Your task to perform on an android device: When is my next meeting? Image 0: 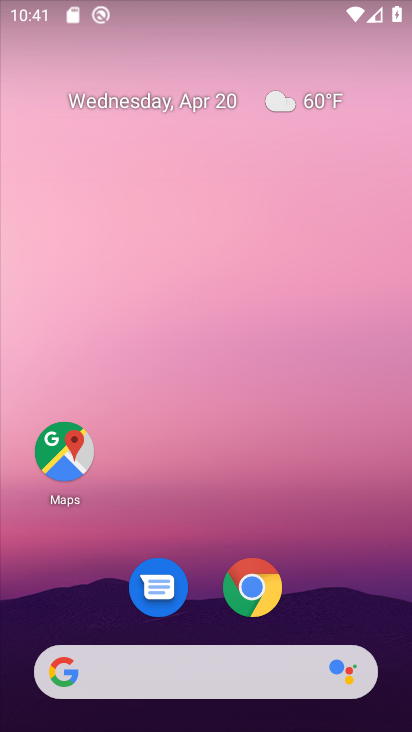
Step 0: drag from (211, 621) to (255, 78)
Your task to perform on an android device: When is my next meeting? Image 1: 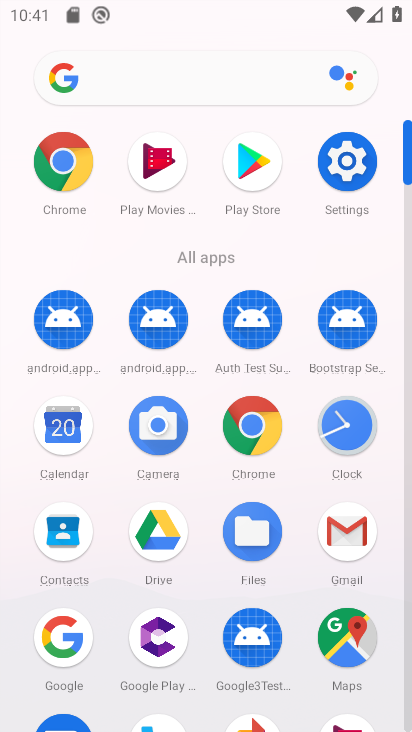
Step 1: click (60, 422)
Your task to perform on an android device: When is my next meeting? Image 2: 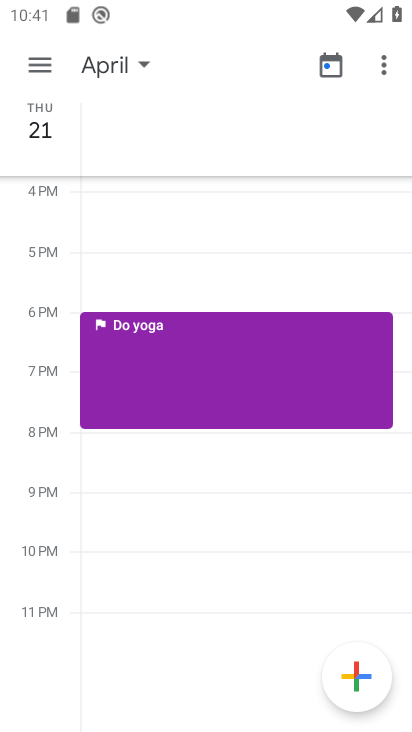
Step 2: click (57, 141)
Your task to perform on an android device: When is my next meeting? Image 3: 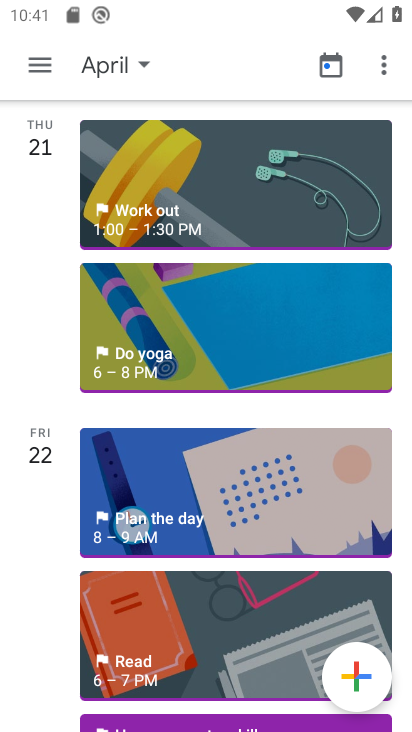
Step 3: drag from (45, 610) to (48, 330)
Your task to perform on an android device: When is my next meeting? Image 4: 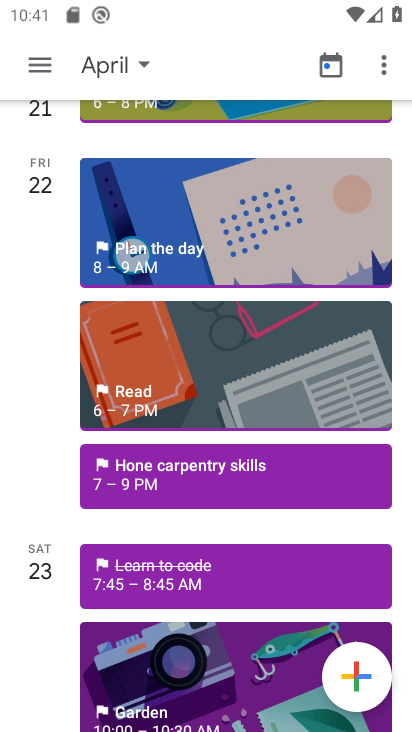
Step 4: drag from (44, 267) to (38, 609)
Your task to perform on an android device: When is my next meeting? Image 5: 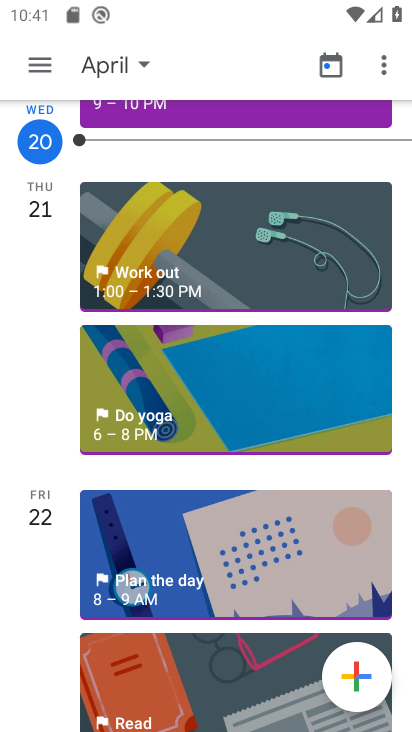
Step 5: click (43, 247)
Your task to perform on an android device: When is my next meeting? Image 6: 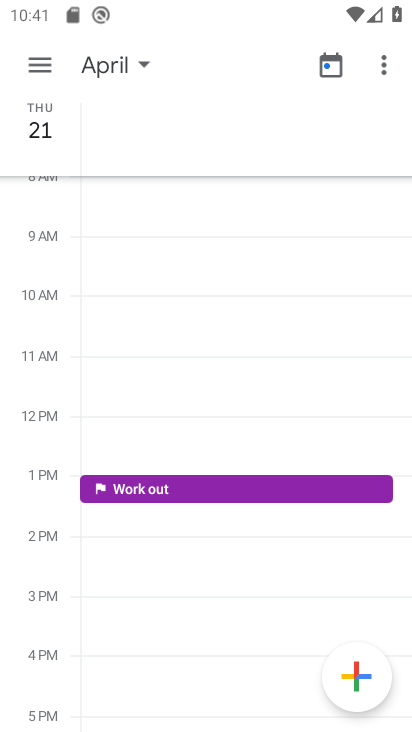
Step 6: drag from (170, 562) to (201, 184)
Your task to perform on an android device: When is my next meeting? Image 7: 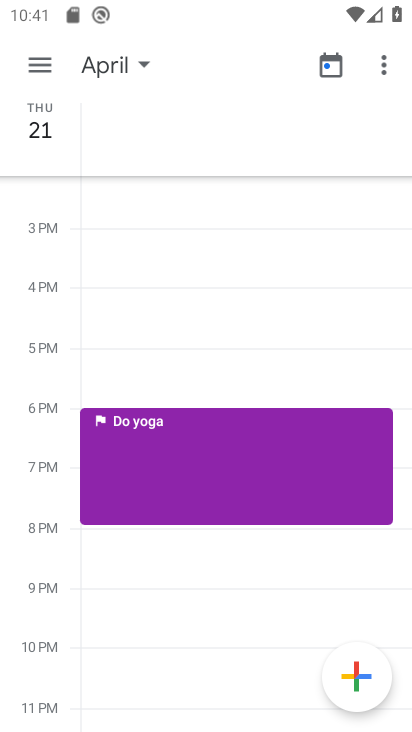
Step 7: drag from (157, 582) to (167, 168)
Your task to perform on an android device: When is my next meeting? Image 8: 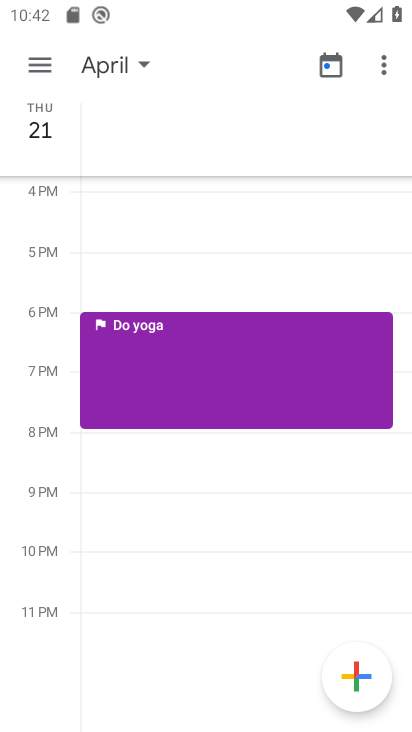
Step 8: click (40, 140)
Your task to perform on an android device: When is my next meeting? Image 9: 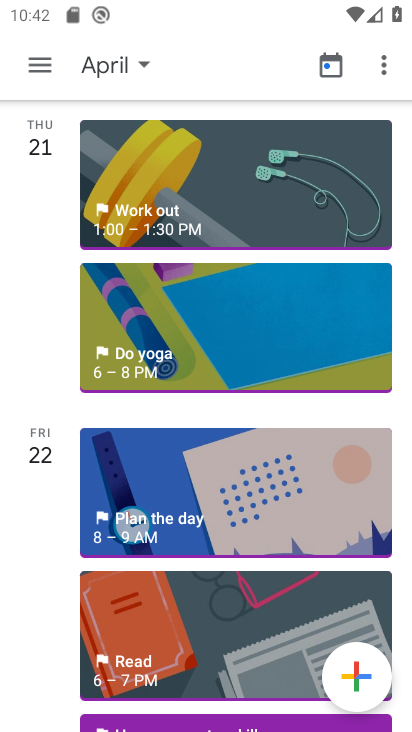
Step 9: click (43, 510)
Your task to perform on an android device: When is my next meeting? Image 10: 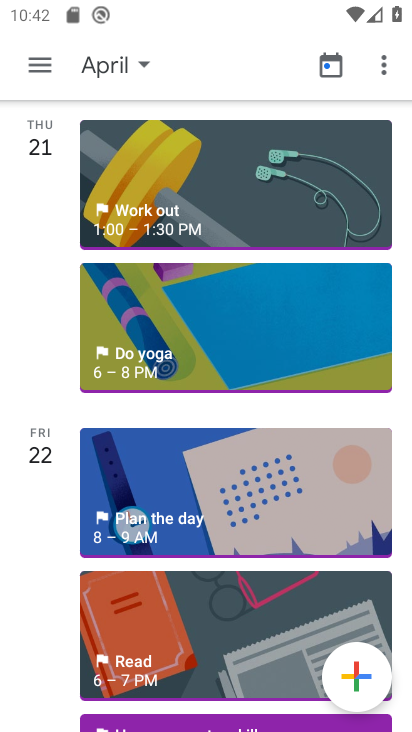
Step 10: click (51, 525)
Your task to perform on an android device: When is my next meeting? Image 11: 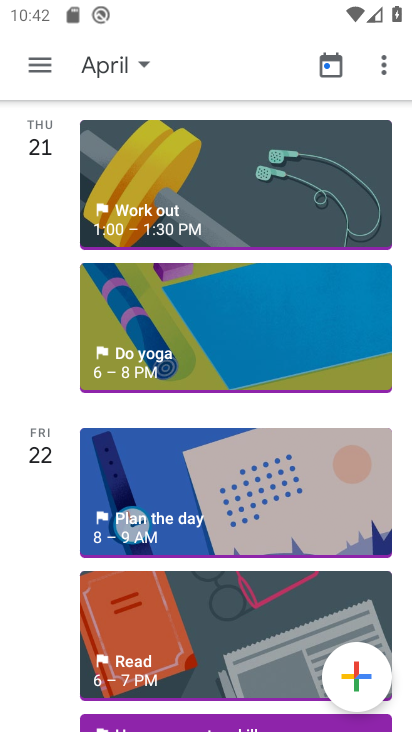
Step 11: click (52, 521)
Your task to perform on an android device: When is my next meeting? Image 12: 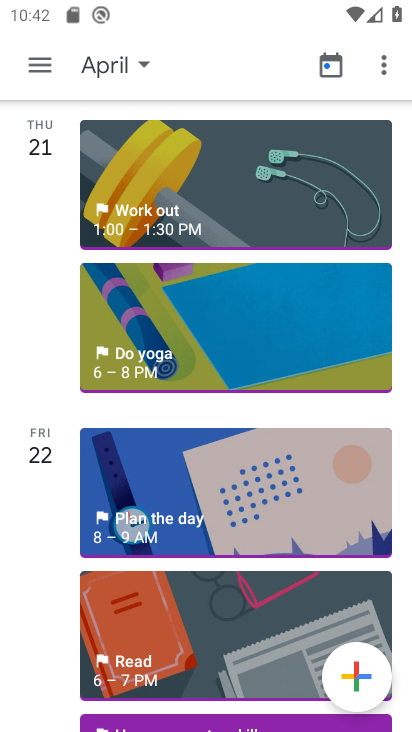
Step 12: click (60, 582)
Your task to perform on an android device: When is my next meeting? Image 13: 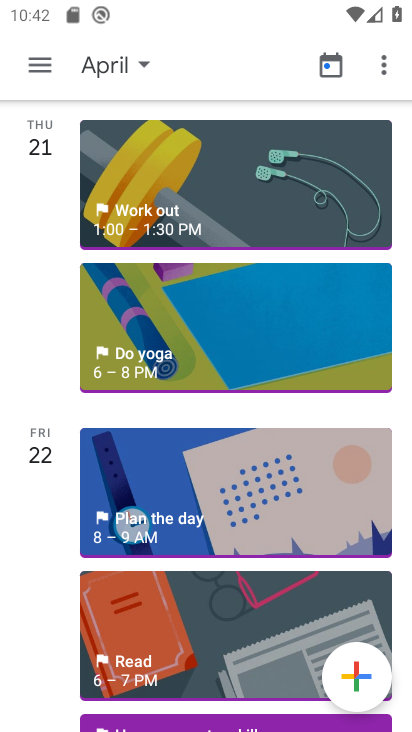
Step 13: drag from (40, 516) to (73, 228)
Your task to perform on an android device: When is my next meeting? Image 14: 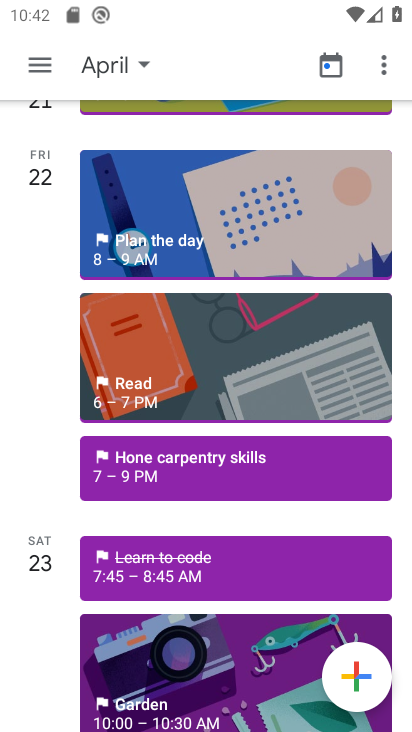
Step 14: click (52, 359)
Your task to perform on an android device: When is my next meeting? Image 15: 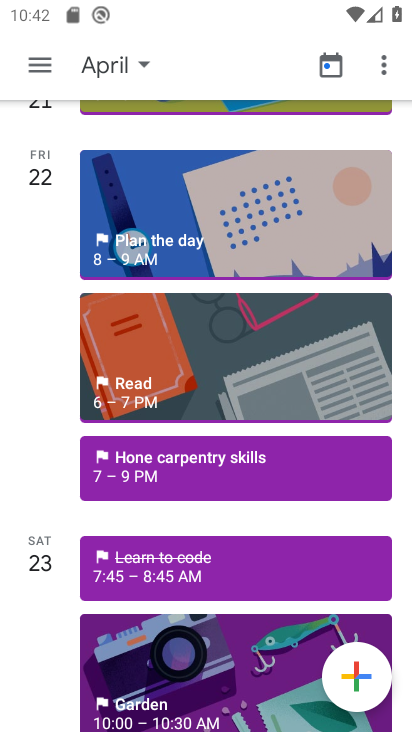
Step 15: task complete